Your task to perform on an android device: Go to location settings Image 0: 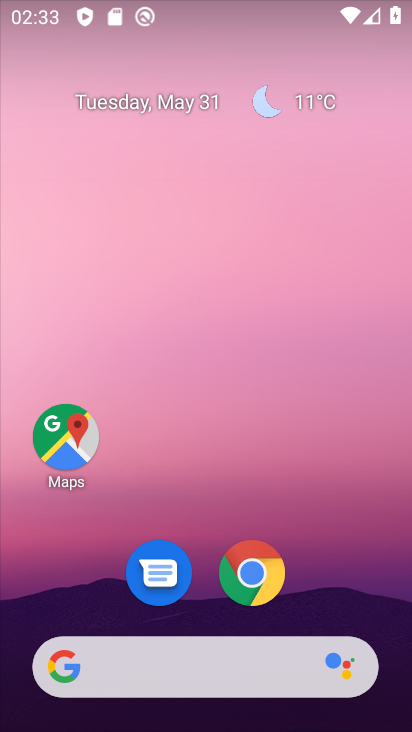
Step 0: drag from (379, 617) to (319, 76)
Your task to perform on an android device: Go to location settings Image 1: 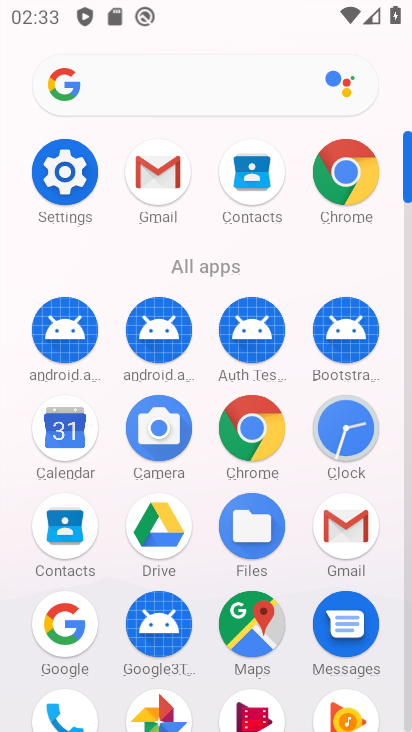
Step 1: click (59, 169)
Your task to perform on an android device: Go to location settings Image 2: 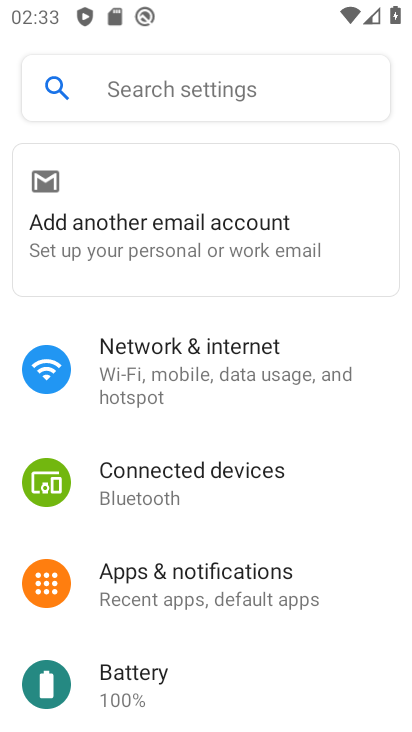
Step 2: drag from (215, 655) to (138, 260)
Your task to perform on an android device: Go to location settings Image 3: 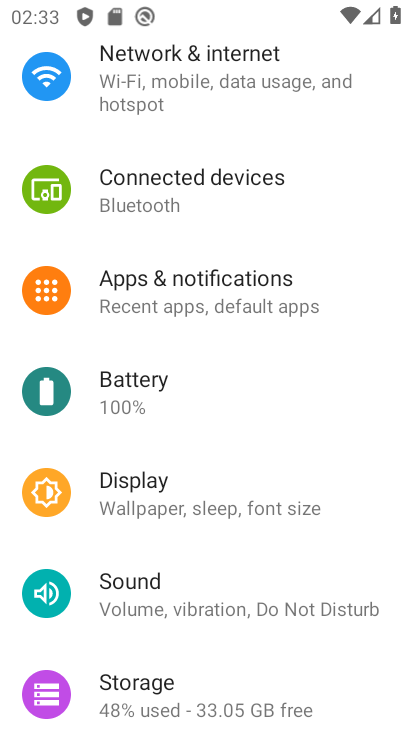
Step 3: drag from (228, 673) to (229, 347)
Your task to perform on an android device: Go to location settings Image 4: 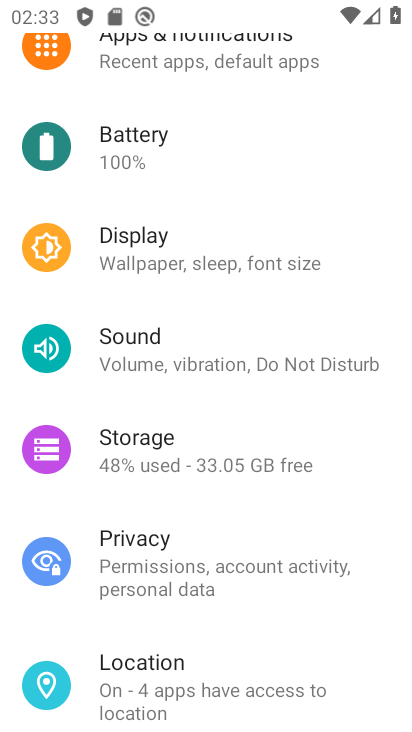
Step 4: click (236, 685)
Your task to perform on an android device: Go to location settings Image 5: 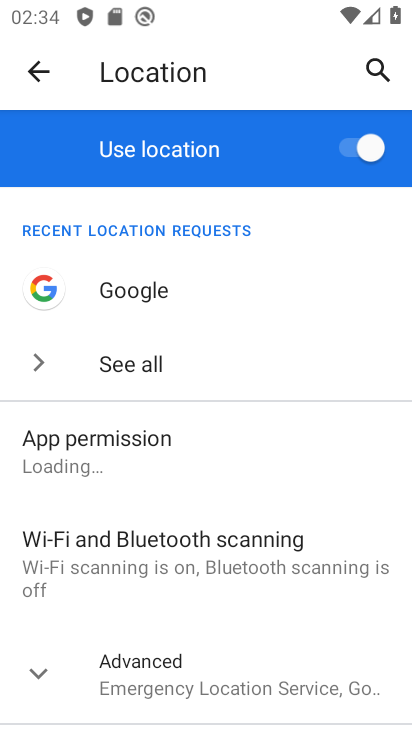
Step 5: task complete